Your task to perform on an android device: toggle javascript in the chrome app Image 0: 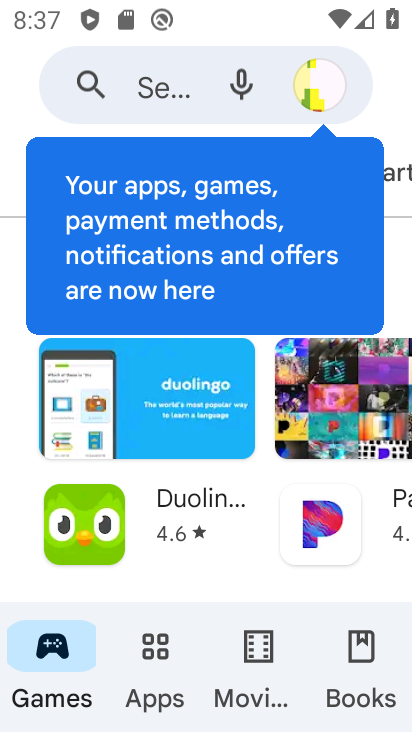
Step 0: press home button
Your task to perform on an android device: toggle javascript in the chrome app Image 1: 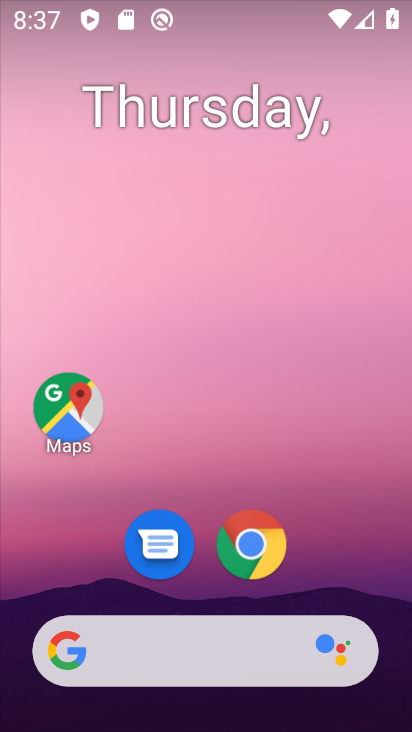
Step 1: click (255, 556)
Your task to perform on an android device: toggle javascript in the chrome app Image 2: 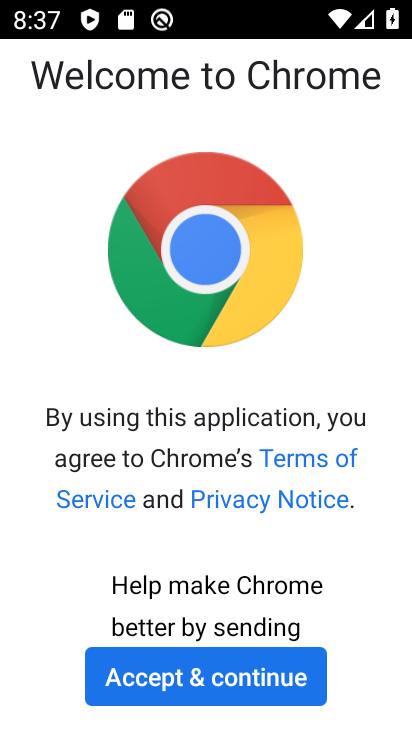
Step 2: click (250, 673)
Your task to perform on an android device: toggle javascript in the chrome app Image 3: 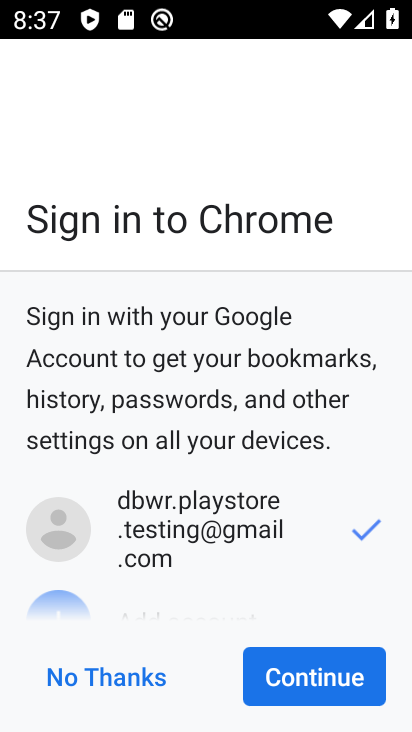
Step 3: click (300, 672)
Your task to perform on an android device: toggle javascript in the chrome app Image 4: 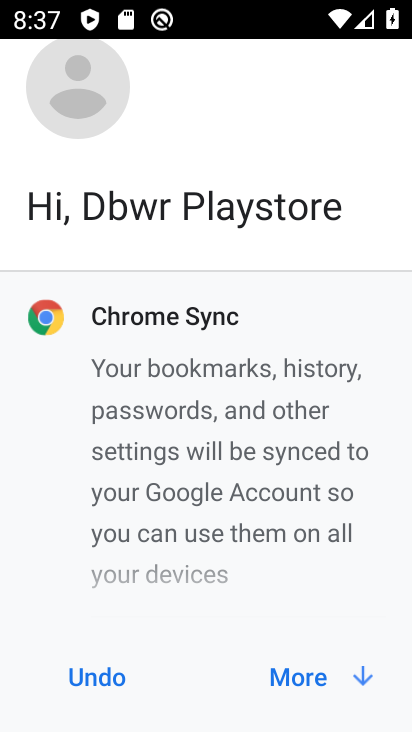
Step 4: click (300, 672)
Your task to perform on an android device: toggle javascript in the chrome app Image 5: 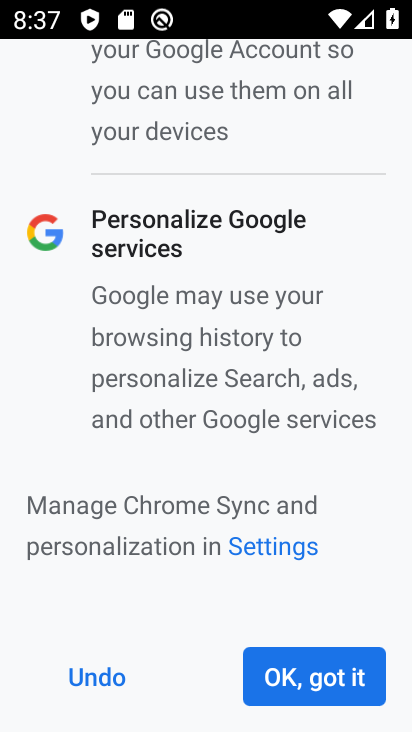
Step 5: click (300, 672)
Your task to perform on an android device: toggle javascript in the chrome app Image 6: 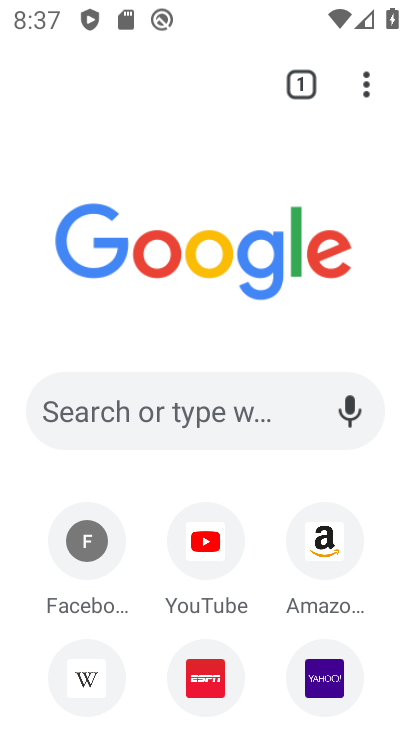
Step 6: click (371, 90)
Your task to perform on an android device: toggle javascript in the chrome app Image 7: 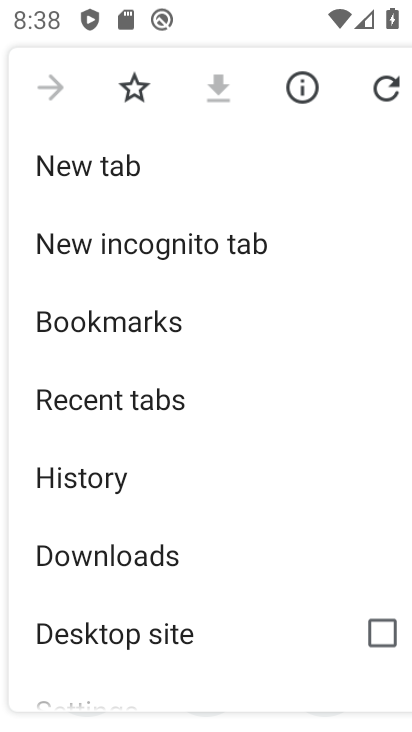
Step 7: click (87, 701)
Your task to perform on an android device: toggle javascript in the chrome app Image 8: 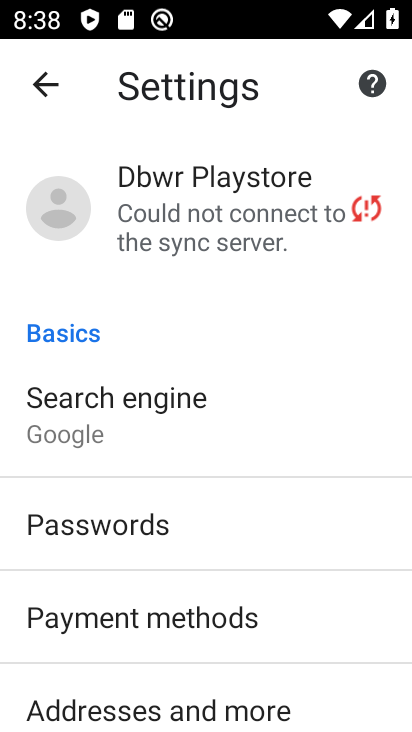
Step 8: drag from (226, 483) to (229, 30)
Your task to perform on an android device: toggle javascript in the chrome app Image 9: 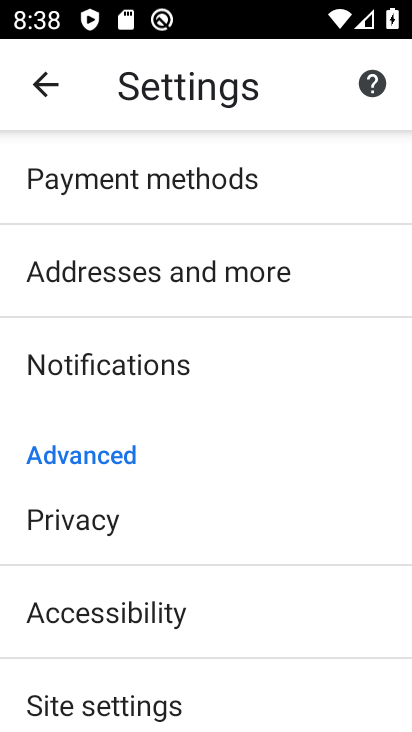
Step 9: click (161, 700)
Your task to perform on an android device: toggle javascript in the chrome app Image 10: 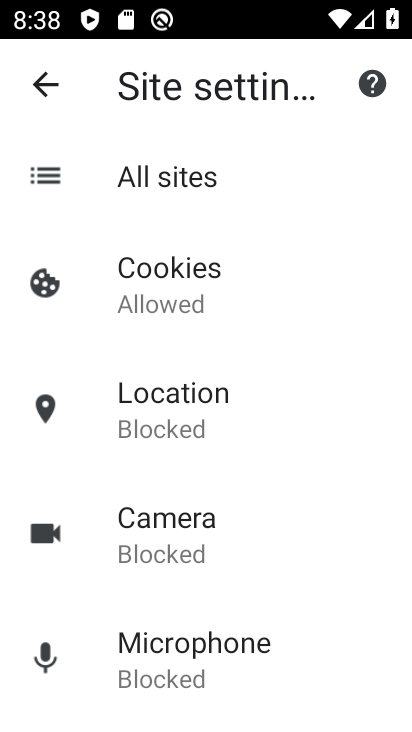
Step 10: drag from (260, 661) to (191, 178)
Your task to perform on an android device: toggle javascript in the chrome app Image 11: 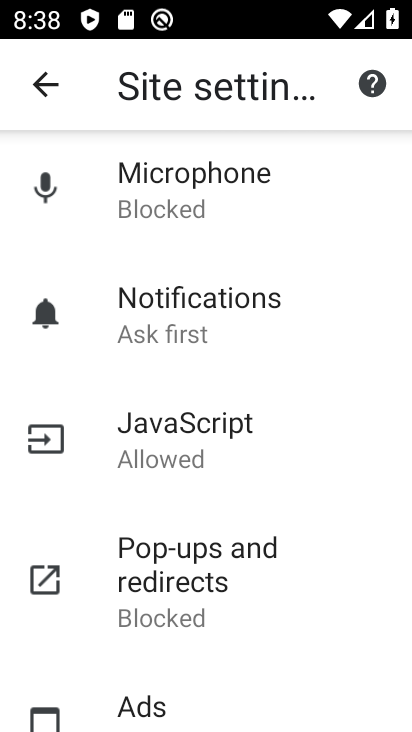
Step 11: click (242, 445)
Your task to perform on an android device: toggle javascript in the chrome app Image 12: 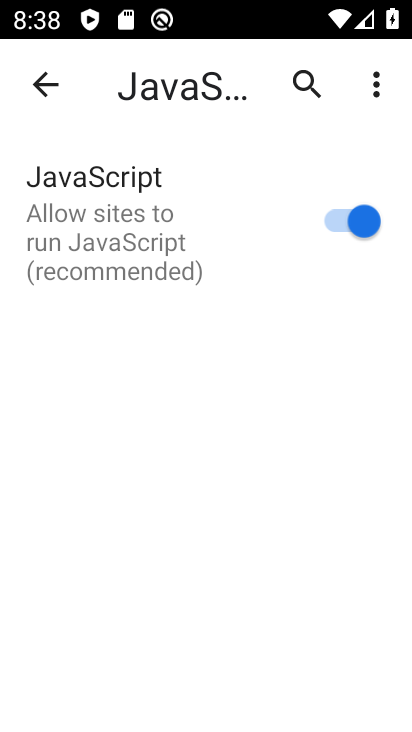
Step 12: task complete